Your task to perform on an android device: Open maps Image 0: 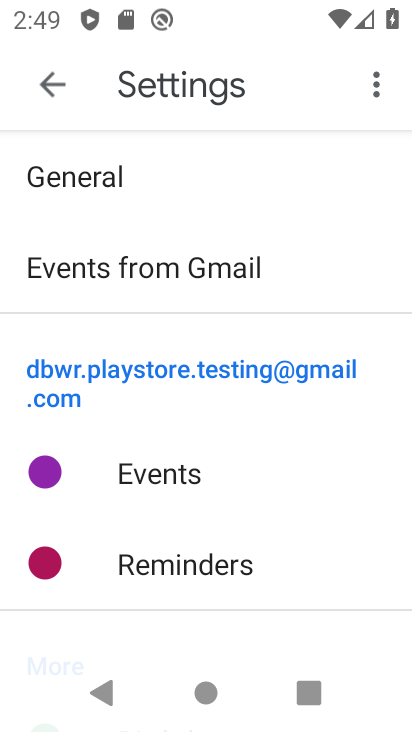
Step 0: press home button
Your task to perform on an android device: Open maps Image 1: 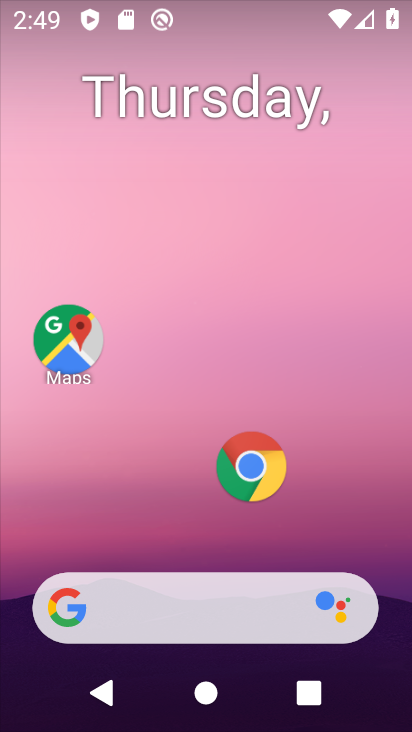
Step 1: click (71, 361)
Your task to perform on an android device: Open maps Image 2: 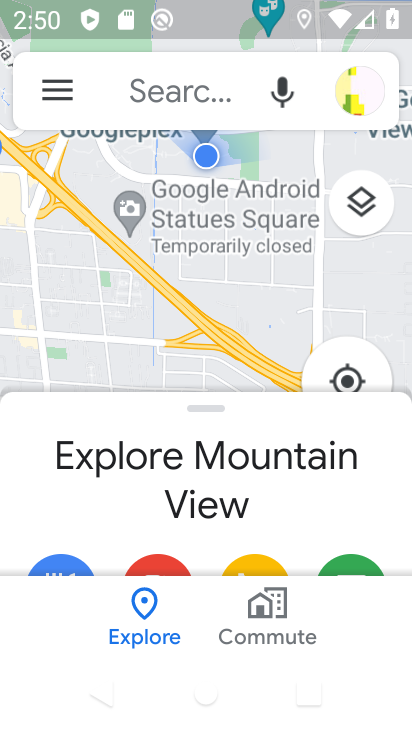
Step 2: task complete